Your task to perform on an android device: toggle improve location accuracy Image 0: 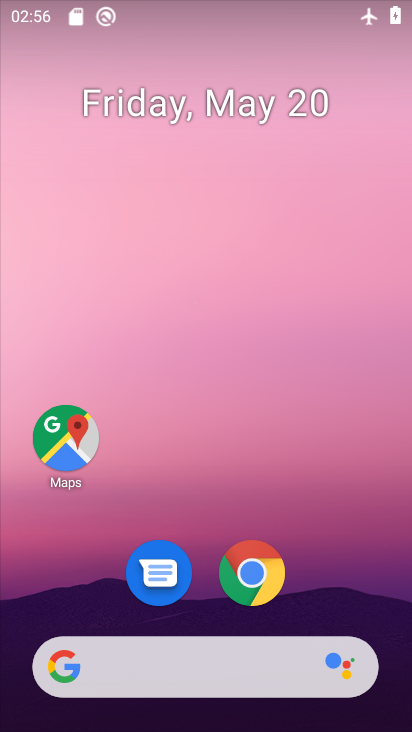
Step 0: drag from (205, 615) to (185, 242)
Your task to perform on an android device: toggle improve location accuracy Image 1: 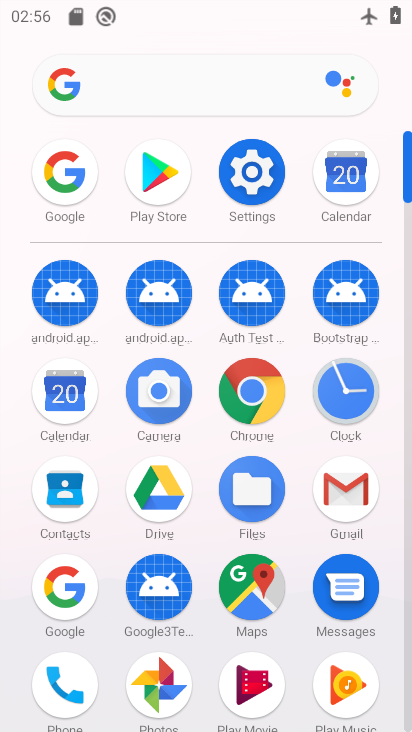
Step 1: click (249, 190)
Your task to perform on an android device: toggle improve location accuracy Image 2: 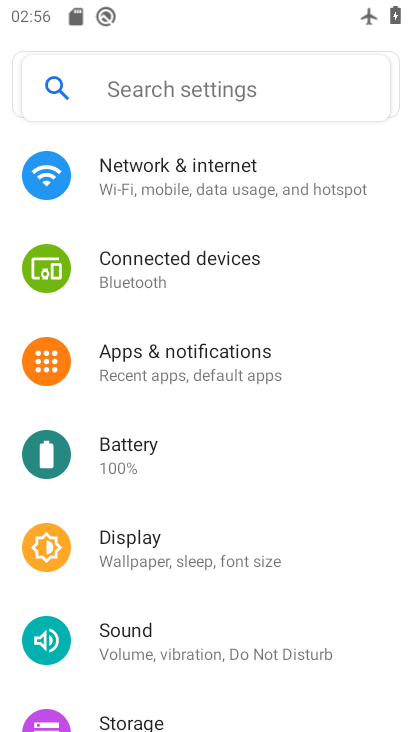
Step 2: drag from (210, 614) to (219, 361)
Your task to perform on an android device: toggle improve location accuracy Image 3: 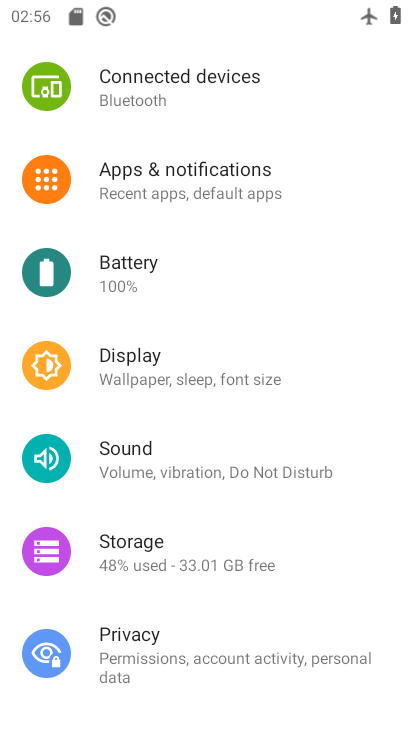
Step 3: drag from (152, 597) to (183, 312)
Your task to perform on an android device: toggle improve location accuracy Image 4: 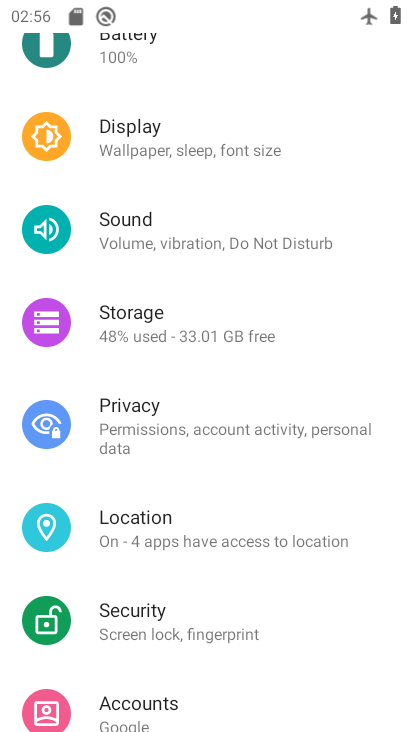
Step 4: drag from (218, 632) to (259, 283)
Your task to perform on an android device: toggle improve location accuracy Image 5: 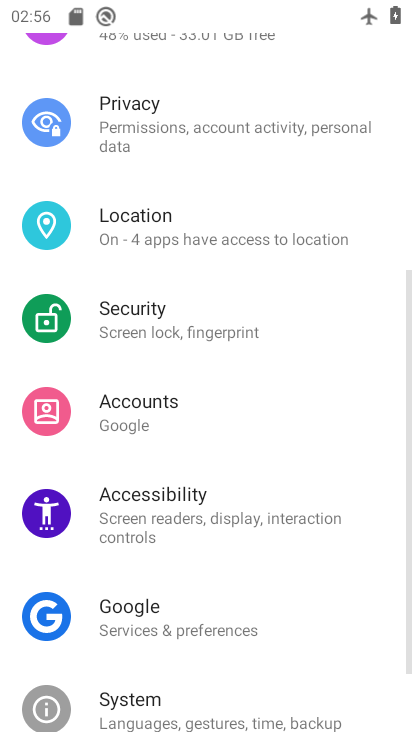
Step 5: drag from (189, 630) to (247, 384)
Your task to perform on an android device: toggle improve location accuracy Image 6: 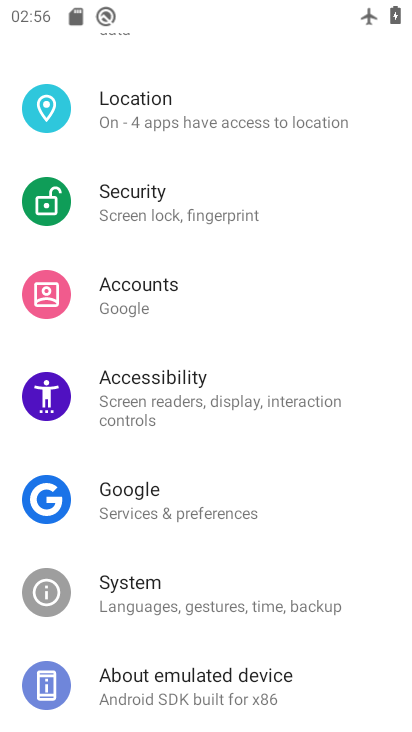
Step 6: drag from (191, 614) to (220, 486)
Your task to perform on an android device: toggle improve location accuracy Image 7: 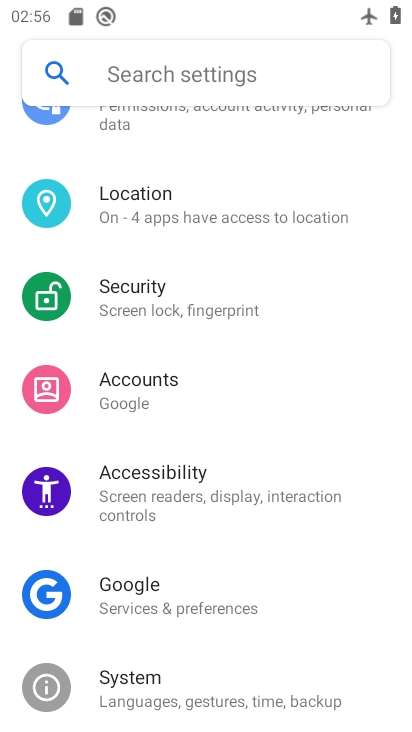
Step 7: click (198, 218)
Your task to perform on an android device: toggle improve location accuracy Image 8: 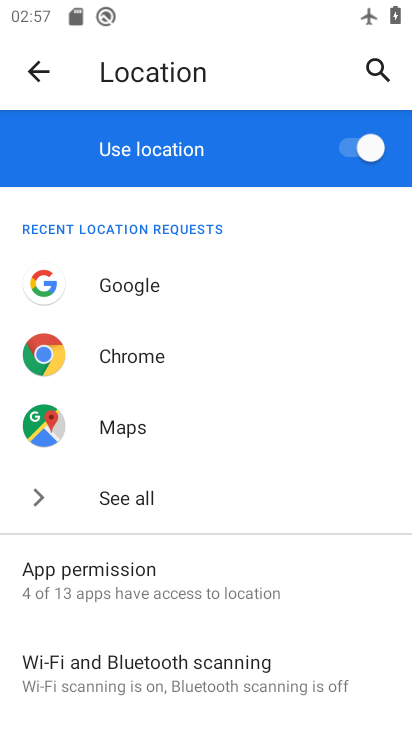
Step 8: drag from (279, 583) to (300, 338)
Your task to perform on an android device: toggle improve location accuracy Image 9: 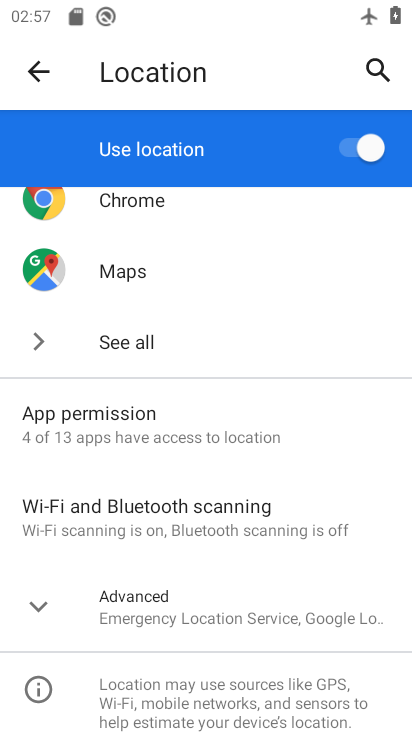
Step 9: click (231, 627)
Your task to perform on an android device: toggle improve location accuracy Image 10: 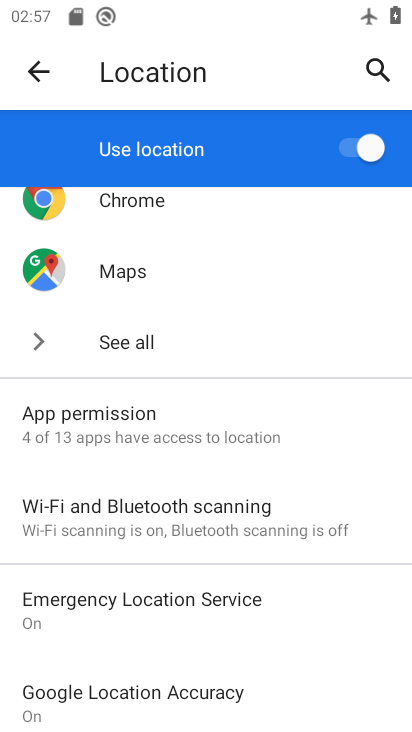
Step 10: click (222, 676)
Your task to perform on an android device: toggle improve location accuracy Image 11: 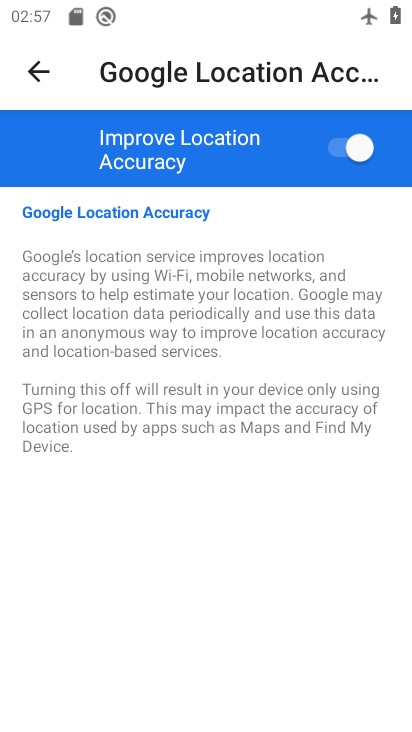
Step 11: click (341, 140)
Your task to perform on an android device: toggle improve location accuracy Image 12: 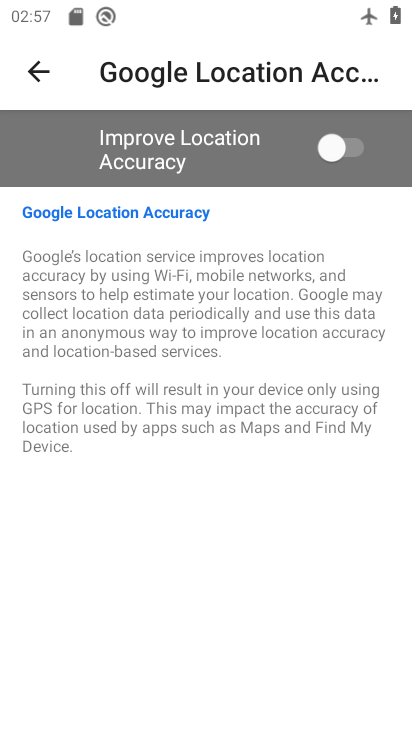
Step 12: task complete